Your task to perform on an android device: stop showing notifications on the lock screen Image 0: 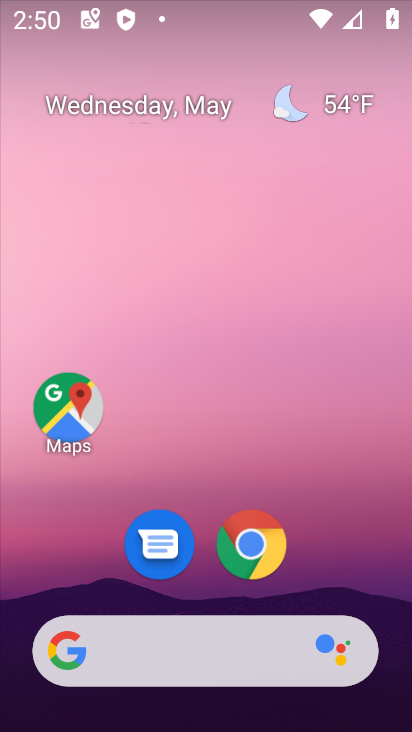
Step 0: drag from (339, 589) to (319, 123)
Your task to perform on an android device: stop showing notifications on the lock screen Image 1: 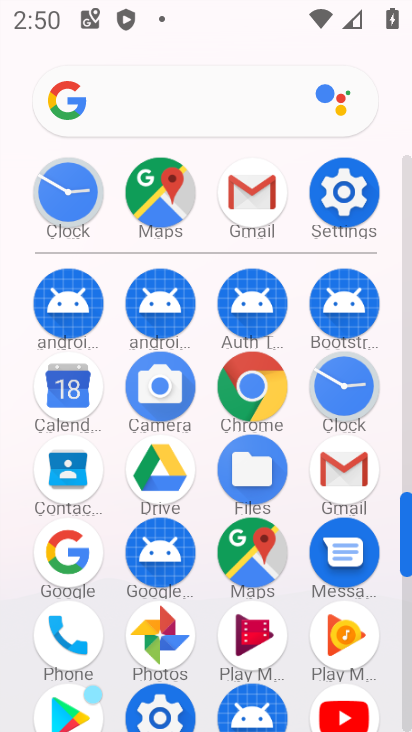
Step 1: click (349, 210)
Your task to perform on an android device: stop showing notifications on the lock screen Image 2: 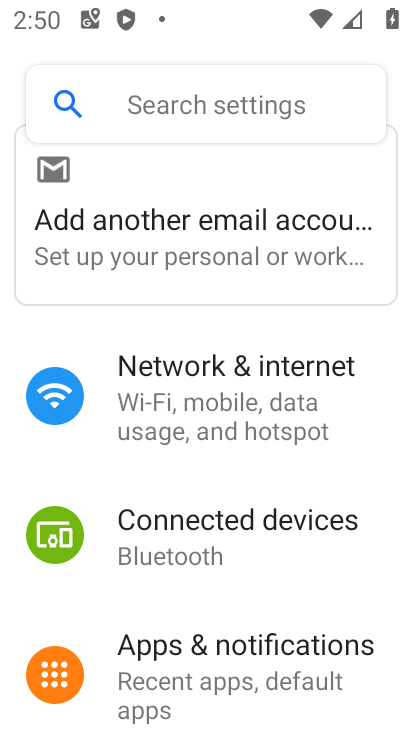
Step 2: click (212, 696)
Your task to perform on an android device: stop showing notifications on the lock screen Image 3: 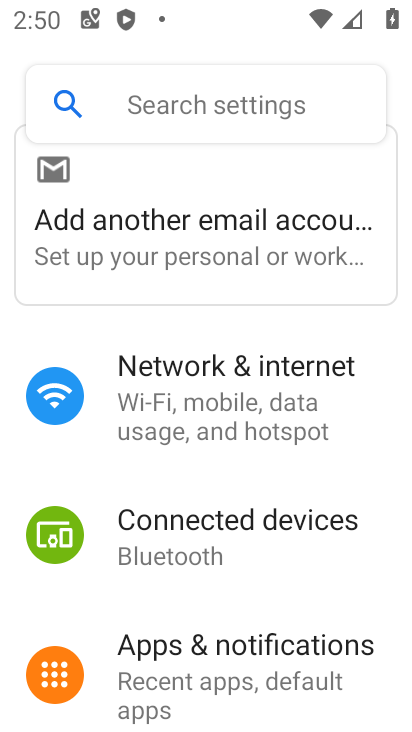
Step 3: drag from (212, 696) to (277, 225)
Your task to perform on an android device: stop showing notifications on the lock screen Image 4: 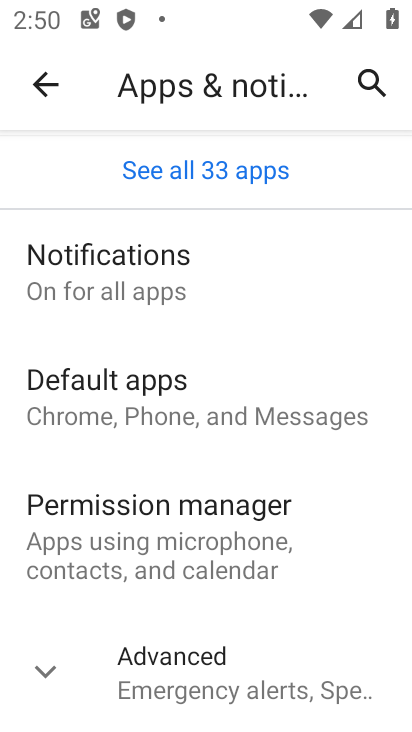
Step 4: click (218, 669)
Your task to perform on an android device: stop showing notifications on the lock screen Image 5: 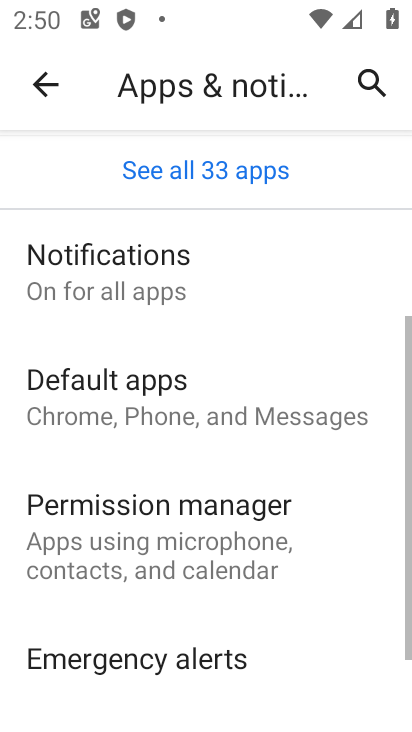
Step 5: drag from (218, 669) to (218, 417)
Your task to perform on an android device: stop showing notifications on the lock screen Image 6: 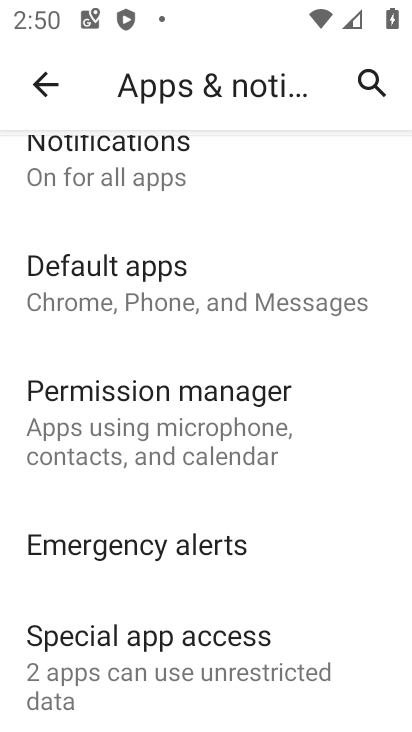
Step 6: click (192, 205)
Your task to perform on an android device: stop showing notifications on the lock screen Image 7: 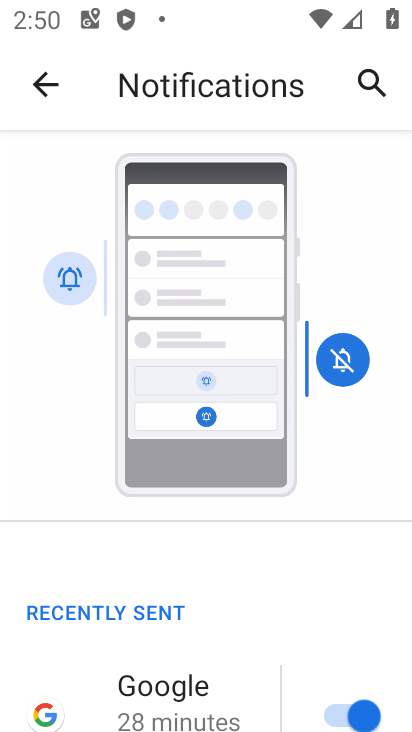
Step 7: drag from (143, 624) to (182, 250)
Your task to perform on an android device: stop showing notifications on the lock screen Image 8: 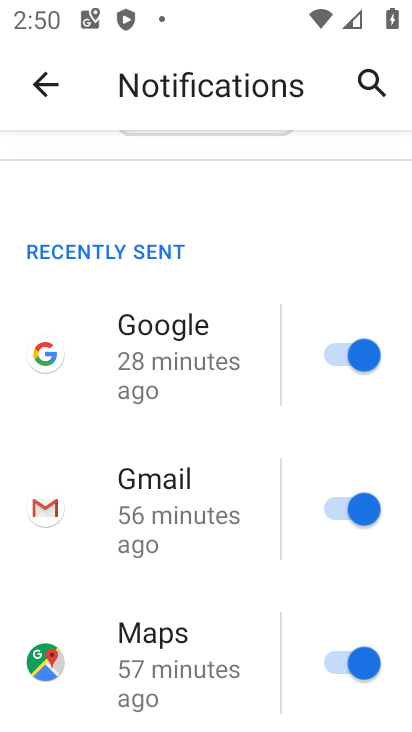
Step 8: drag from (104, 582) to (115, 234)
Your task to perform on an android device: stop showing notifications on the lock screen Image 9: 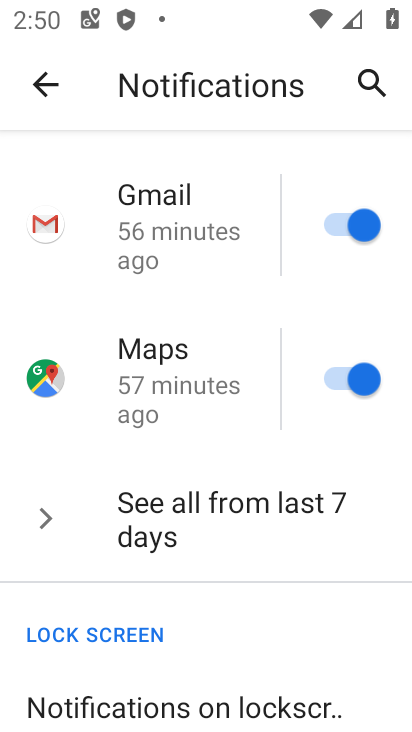
Step 9: click (201, 669)
Your task to perform on an android device: stop showing notifications on the lock screen Image 10: 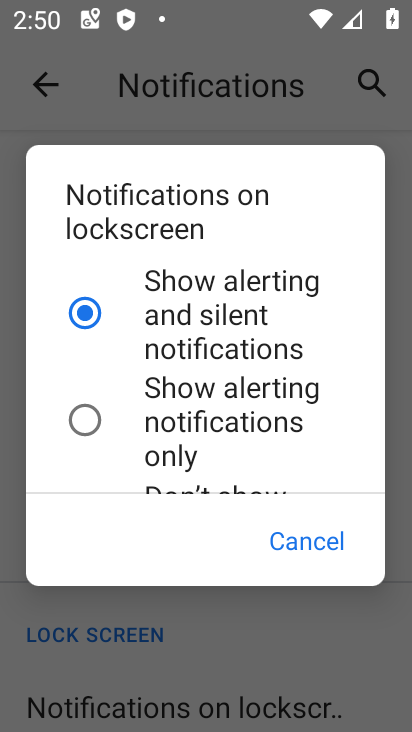
Step 10: drag from (198, 452) to (209, 325)
Your task to perform on an android device: stop showing notifications on the lock screen Image 11: 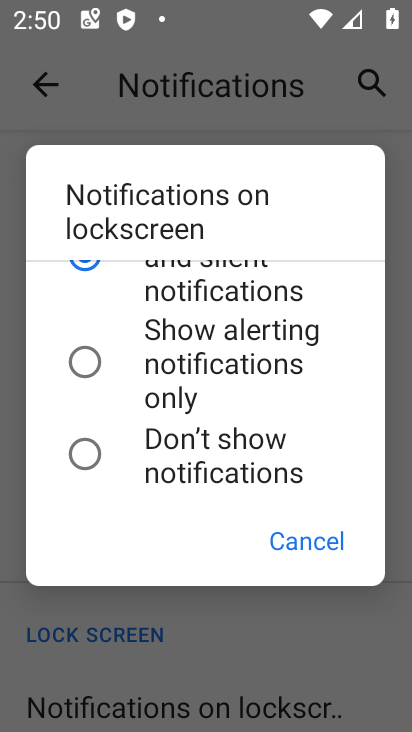
Step 11: click (201, 447)
Your task to perform on an android device: stop showing notifications on the lock screen Image 12: 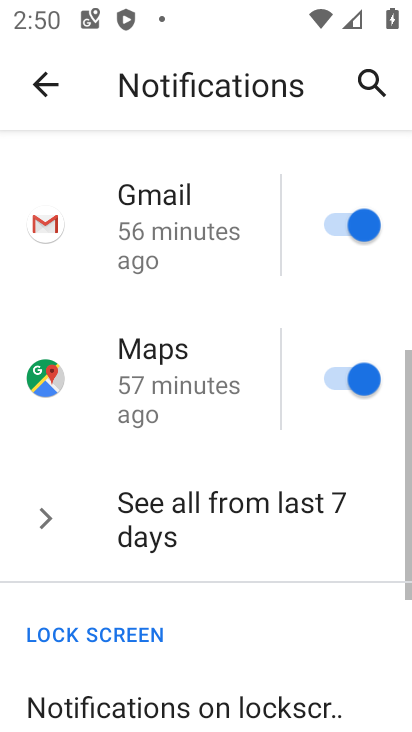
Step 12: task complete